Your task to perform on an android device: Open Google Maps and go to "Timeline" Image 0: 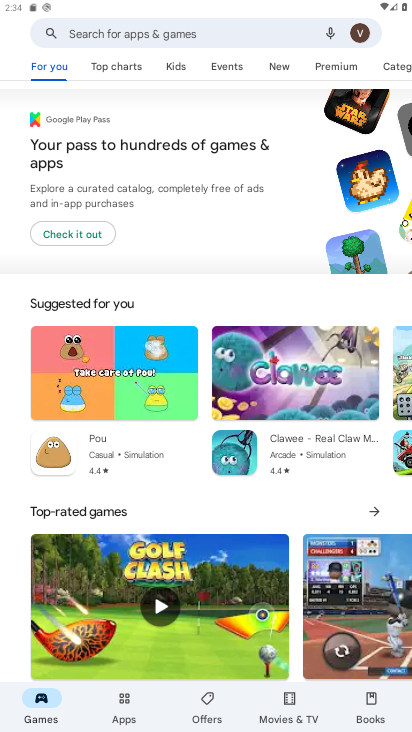
Step 0: press home button
Your task to perform on an android device: Open Google Maps and go to "Timeline" Image 1: 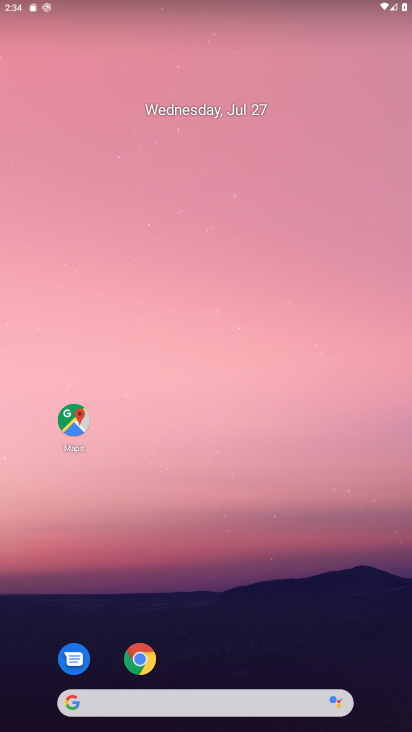
Step 1: drag from (128, 636) to (159, 80)
Your task to perform on an android device: Open Google Maps and go to "Timeline" Image 2: 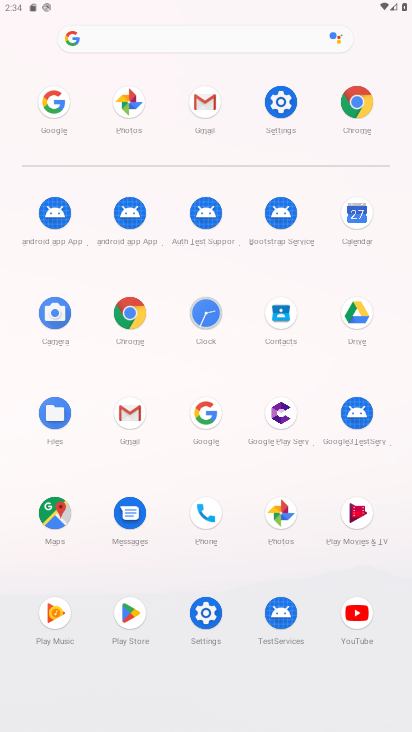
Step 2: click (37, 525)
Your task to perform on an android device: Open Google Maps and go to "Timeline" Image 3: 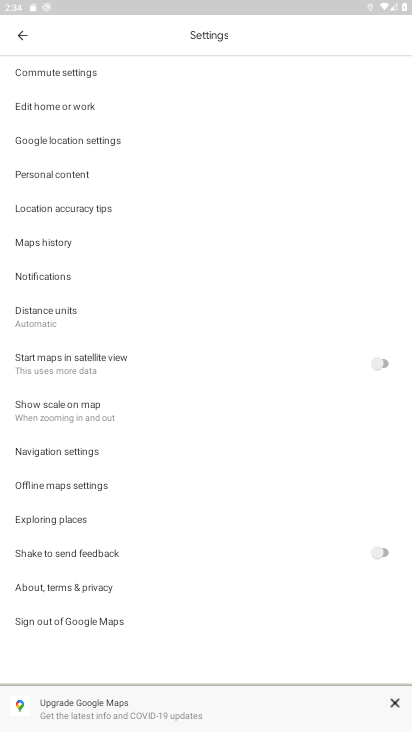
Step 3: click (19, 33)
Your task to perform on an android device: Open Google Maps and go to "Timeline" Image 4: 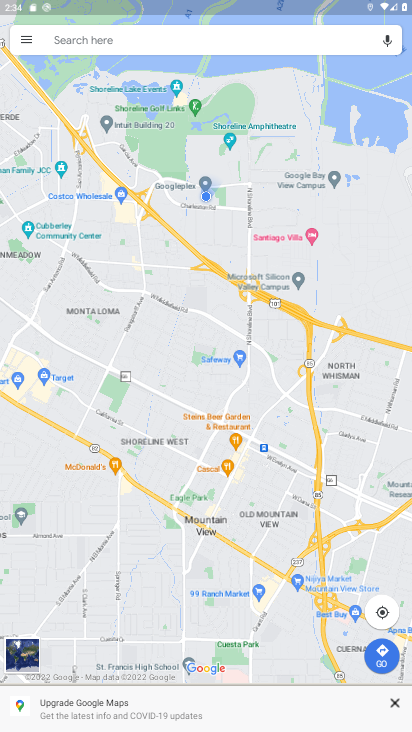
Step 4: click (19, 31)
Your task to perform on an android device: Open Google Maps and go to "Timeline" Image 5: 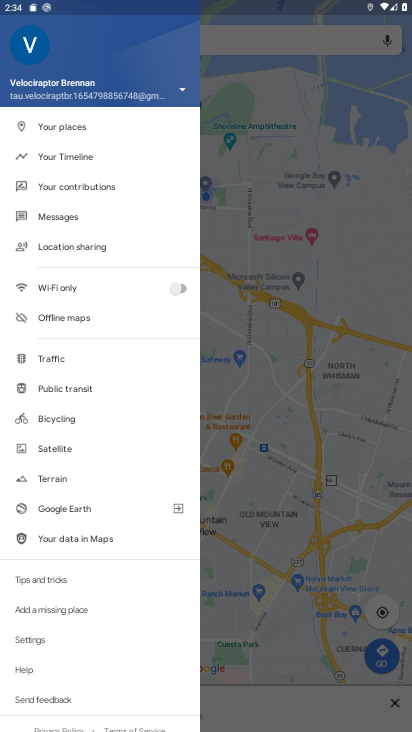
Step 5: click (70, 161)
Your task to perform on an android device: Open Google Maps and go to "Timeline" Image 6: 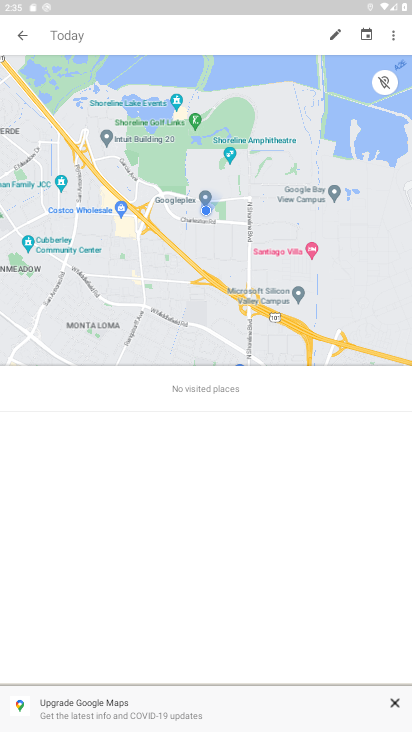
Step 6: task complete